Your task to perform on an android device: Open Wikipedia Image 0: 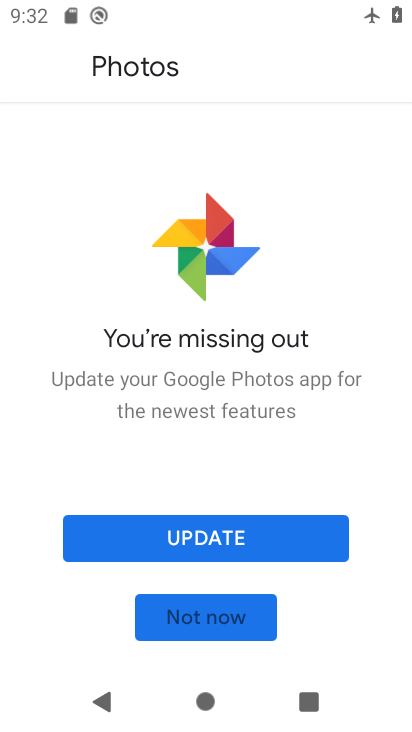
Step 0: press home button
Your task to perform on an android device: Open Wikipedia Image 1: 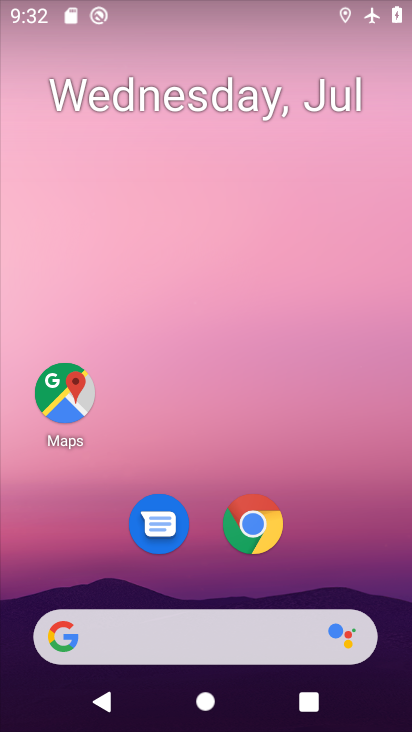
Step 1: click (273, 519)
Your task to perform on an android device: Open Wikipedia Image 2: 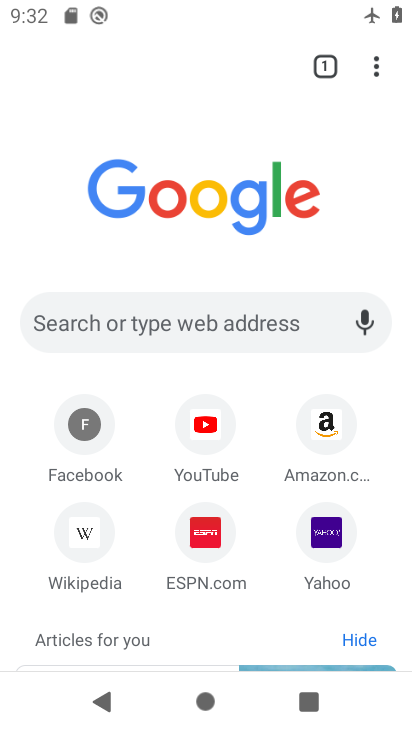
Step 2: click (83, 519)
Your task to perform on an android device: Open Wikipedia Image 3: 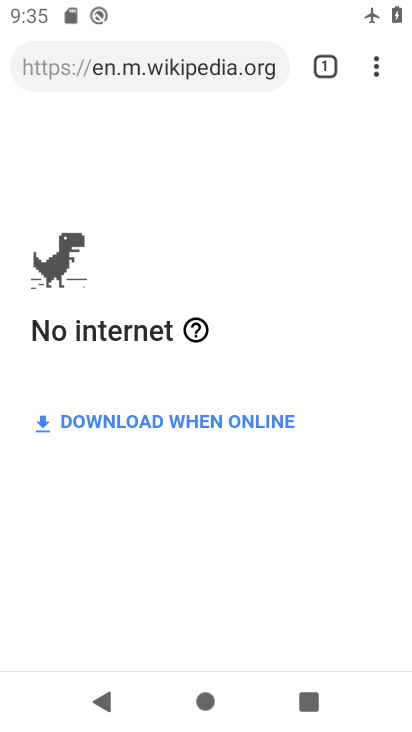
Step 3: task complete